Your task to perform on an android device: Go to Android settings Image 0: 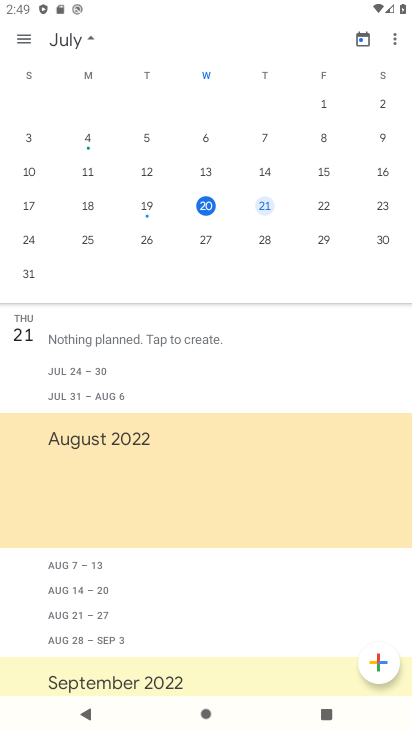
Step 0: press home button
Your task to perform on an android device: Go to Android settings Image 1: 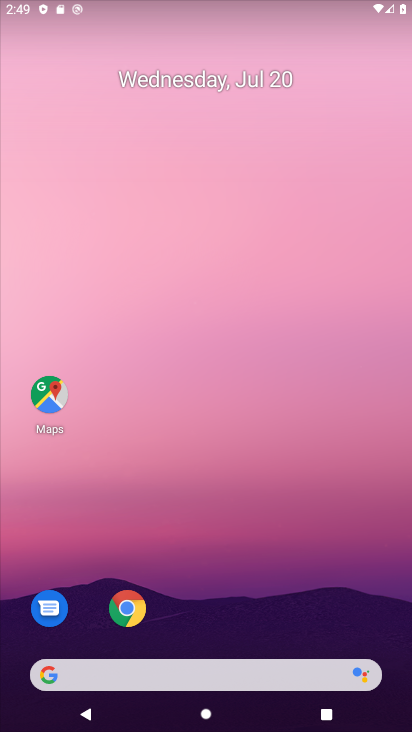
Step 1: drag from (303, 619) to (240, 138)
Your task to perform on an android device: Go to Android settings Image 2: 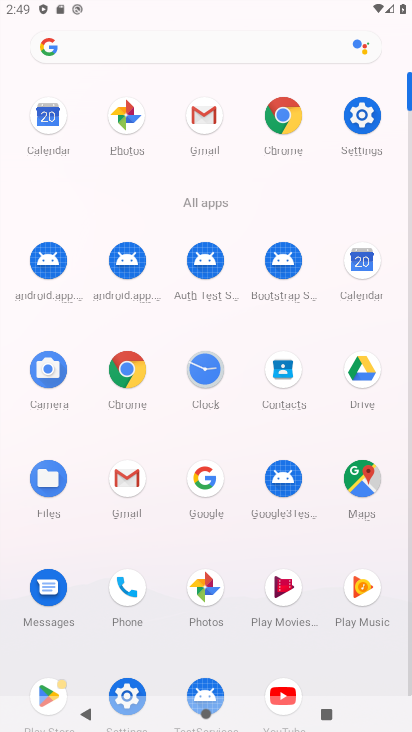
Step 2: click (360, 117)
Your task to perform on an android device: Go to Android settings Image 3: 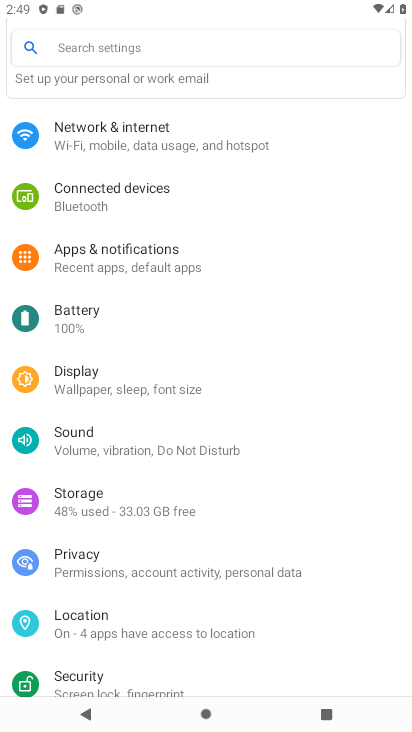
Step 3: task complete